Your task to perform on an android device: Search for vegetarian restaurants on Maps Image 0: 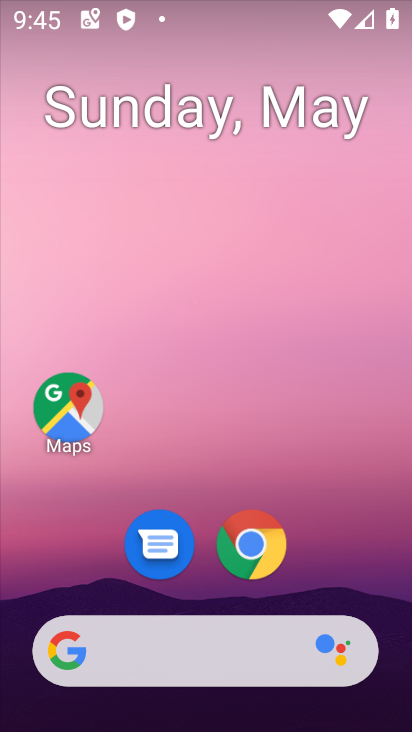
Step 0: drag from (348, 464) to (313, 2)
Your task to perform on an android device: Search for vegetarian restaurants on Maps Image 1: 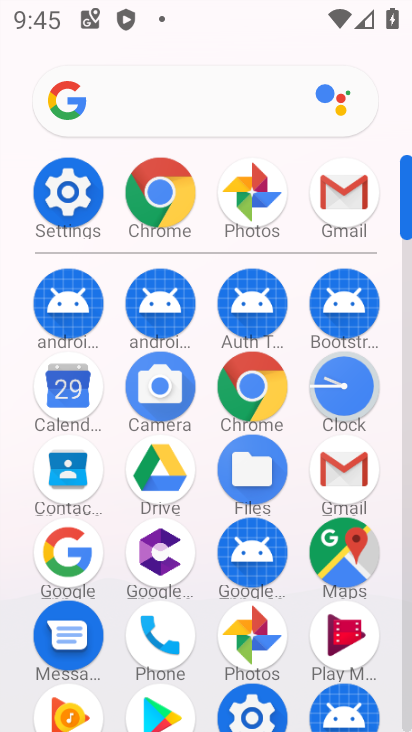
Step 1: click (360, 555)
Your task to perform on an android device: Search for vegetarian restaurants on Maps Image 2: 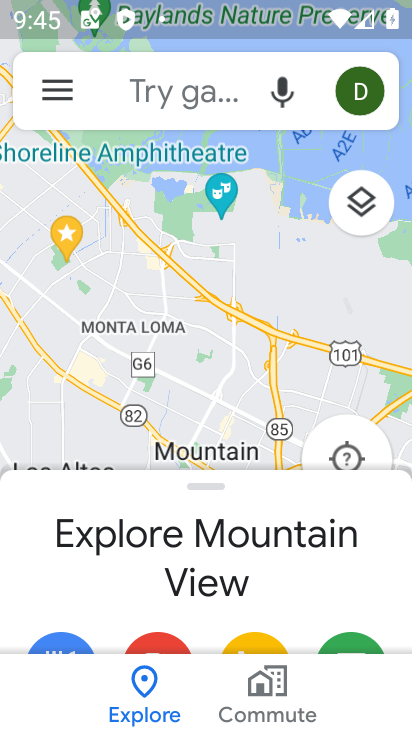
Step 2: click (177, 95)
Your task to perform on an android device: Search for vegetarian restaurants on Maps Image 3: 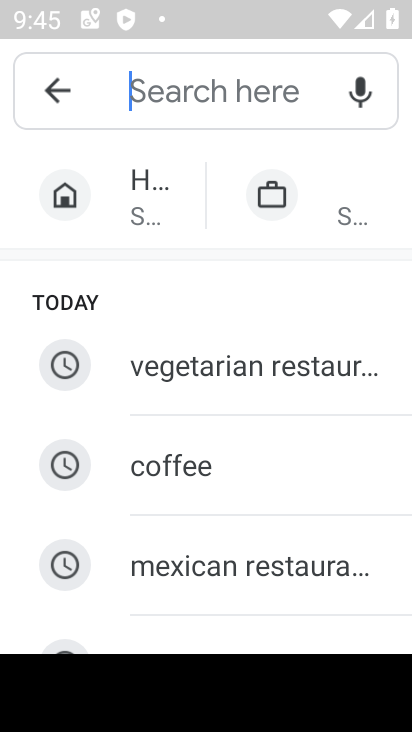
Step 3: click (243, 372)
Your task to perform on an android device: Search for vegetarian restaurants on Maps Image 4: 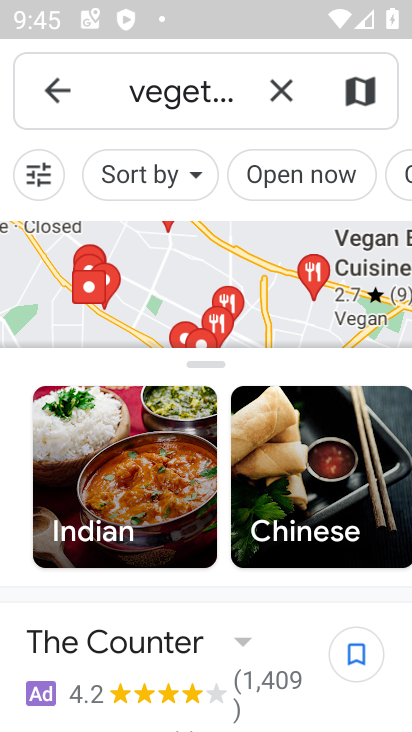
Step 4: task complete